Your task to perform on an android device: change text size in settings app Image 0: 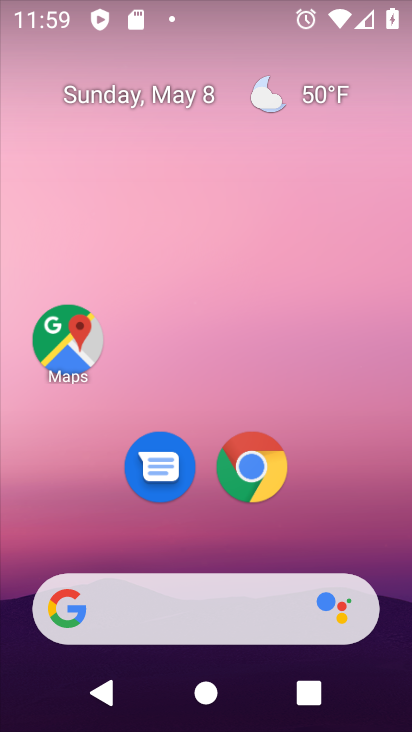
Step 0: drag from (202, 536) to (240, 5)
Your task to perform on an android device: change text size in settings app Image 1: 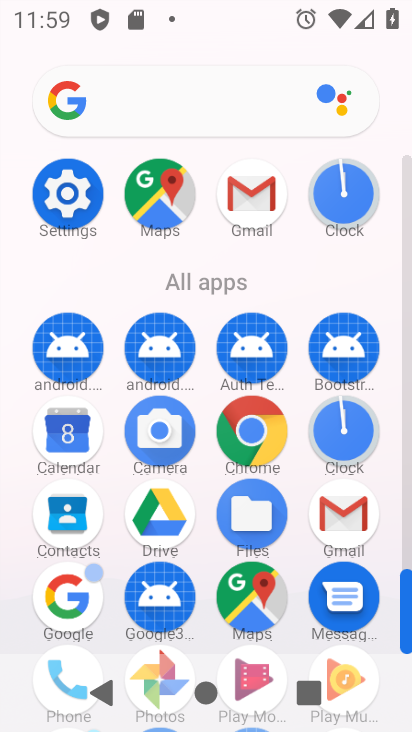
Step 1: click (64, 190)
Your task to perform on an android device: change text size in settings app Image 2: 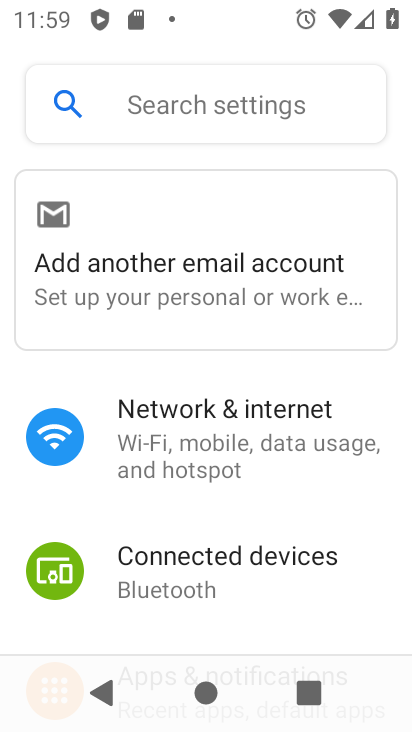
Step 2: drag from (235, 614) to (301, 40)
Your task to perform on an android device: change text size in settings app Image 3: 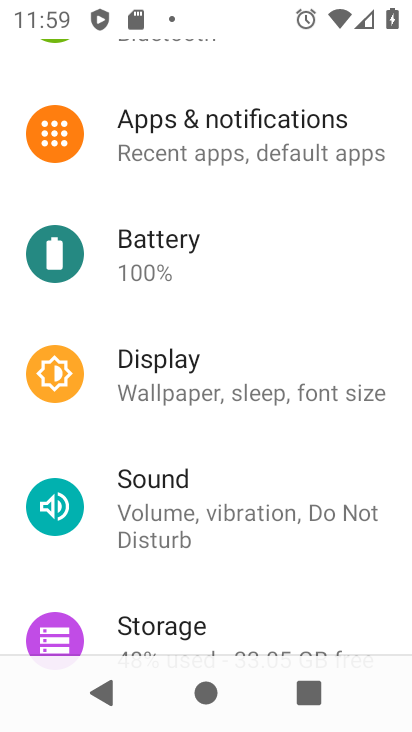
Step 3: drag from (226, 605) to (251, 198)
Your task to perform on an android device: change text size in settings app Image 4: 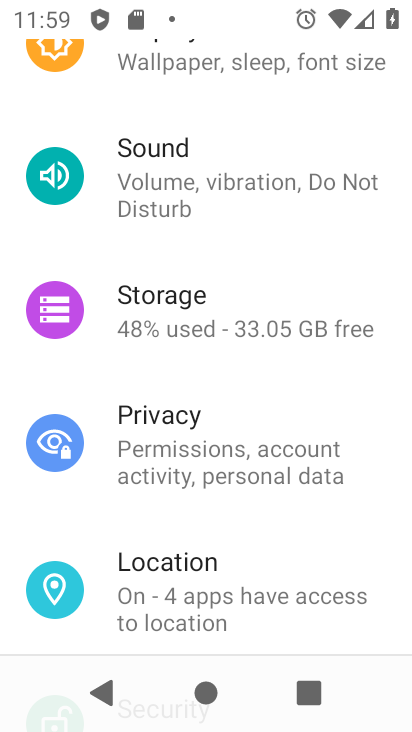
Step 4: click (169, 60)
Your task to perform on an android device: change text size in settings app Image 5: 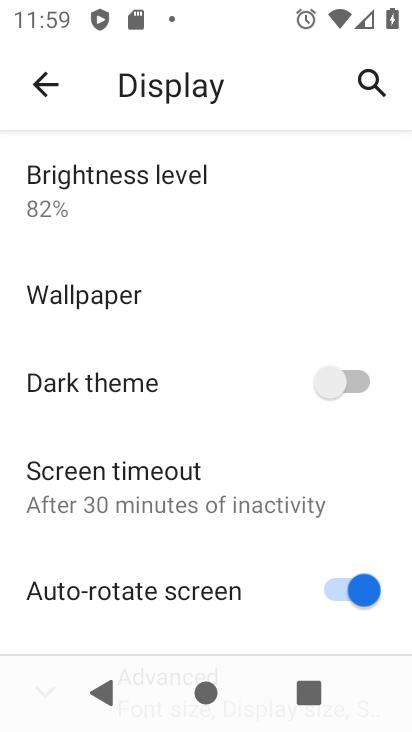
Step 5: drag from (155, 605) to (189, 186)
Your task to perform on an android device: change text size in settings app Image 6: 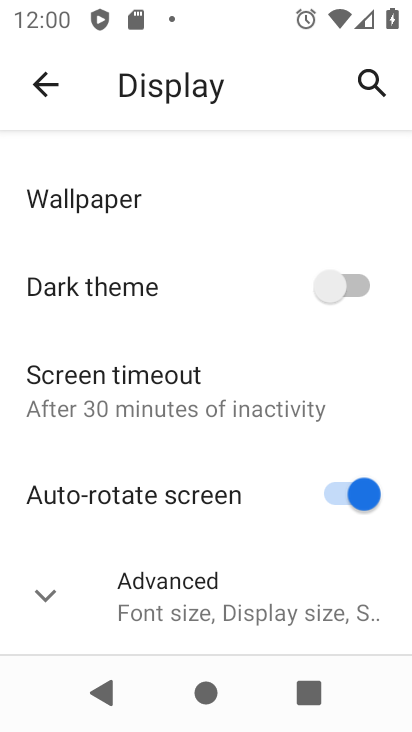
Step 6: click (46, 586)
Your task to perform on an android device: change text size in settings app Image 7: 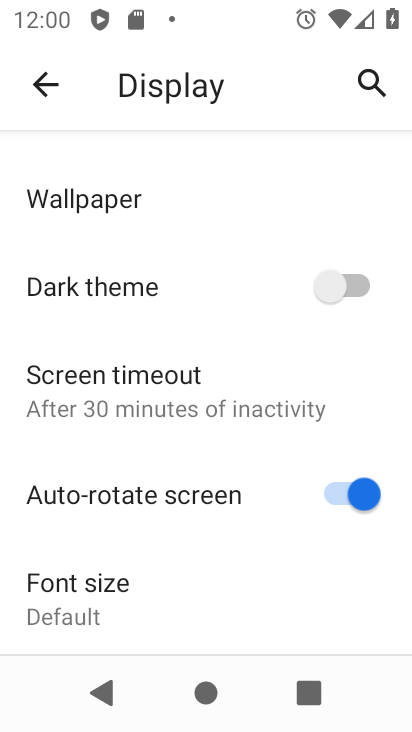
Step 7: click (149, 605)
Your task to perform on an android device: change text size in settings app Image 8: 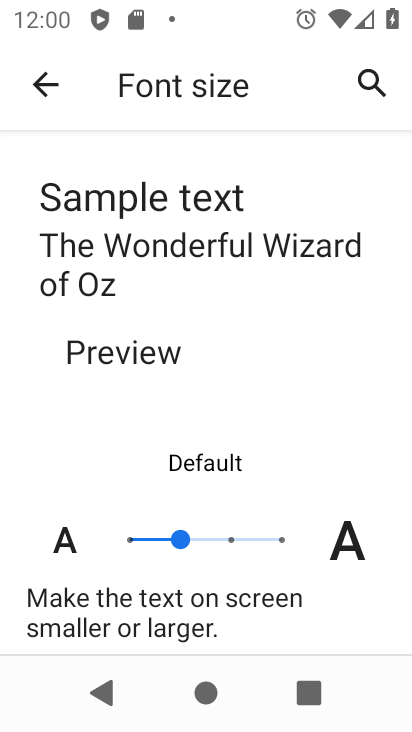
Step 8: click (125, 539)
Your task to perform on an android device: change text size in settings app Image 9: 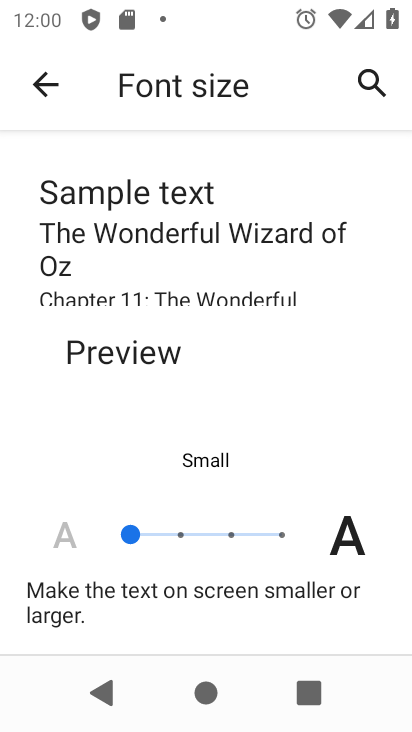
Step 9: task complete